Your task to perform on an android device: turn pop-ups off in chrome Image 0: 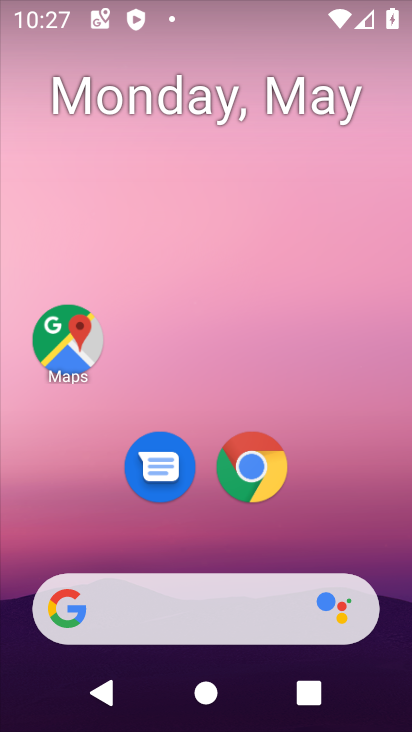
Step 0: click (245, 467)
Your task to perform on an android device: turn pop-ups off in chrome Image 1: 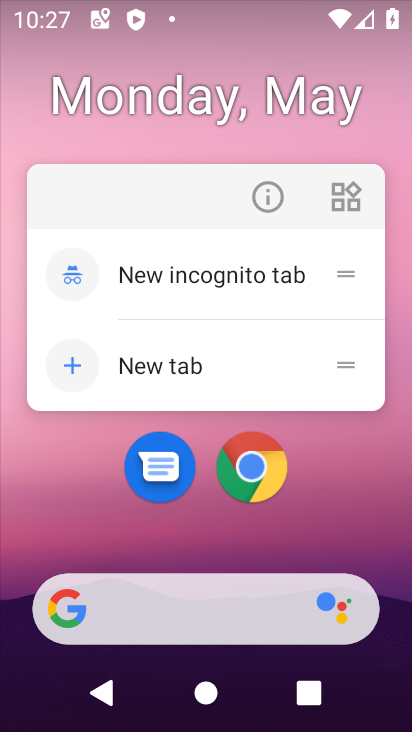
Step 1: click (245, 467)
Your task to perform on an android device: turn pop-ups off in chrome Image 2: 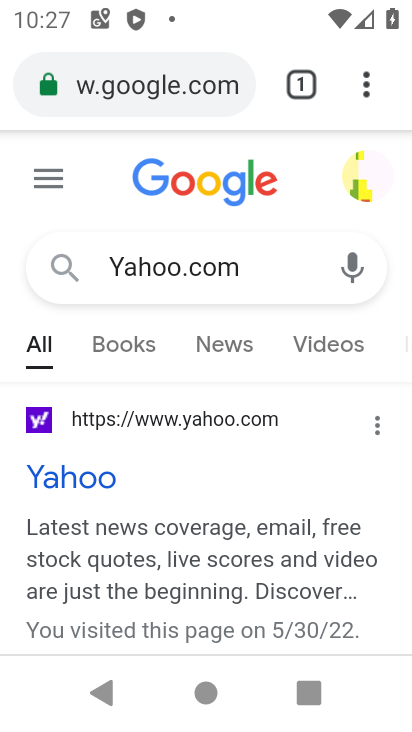
Step 2: click (238, 80)
Your task to perform on an android device: turn pop-ups off in chrome Image 3: 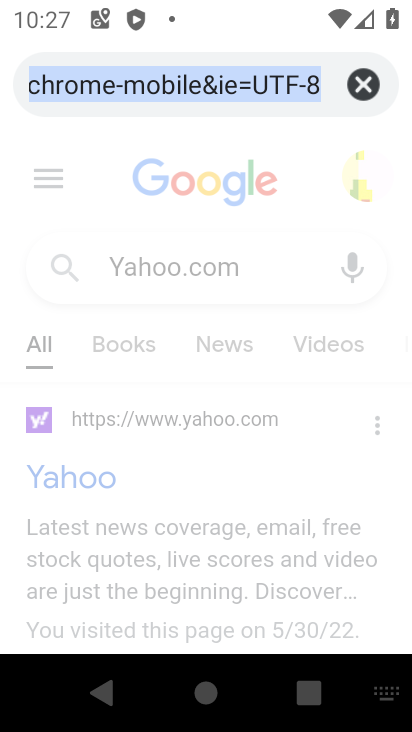
Step 3: click (360, 85)
Your task to perform on an android device: turn pop-ups off in chrome Image 4: 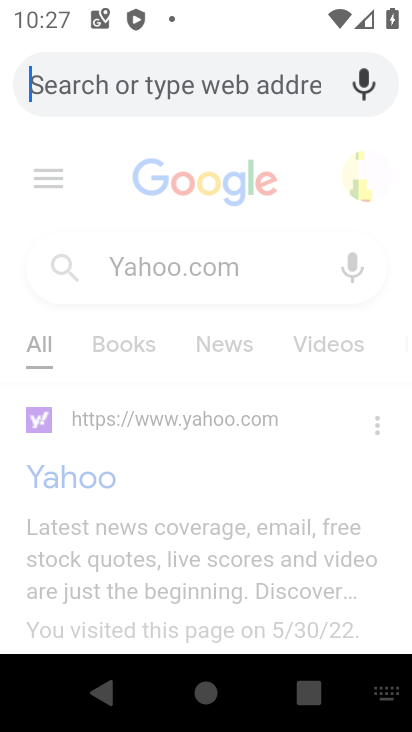
Step 4: press back button
Your task to perform on an android device: turn pop-ups off in chrome Image 5: 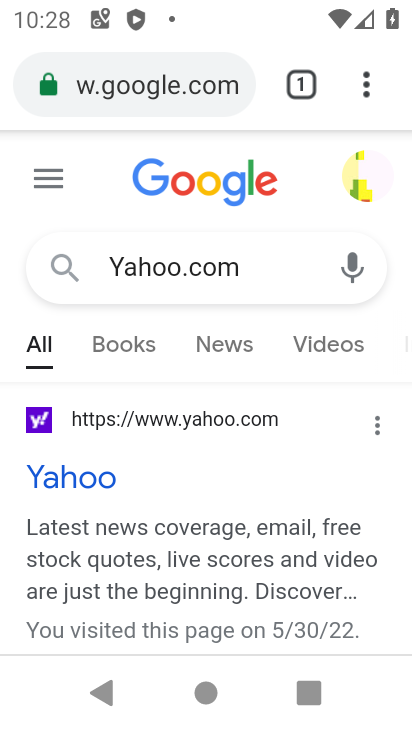
Step 5: click (365, 84)
Your task to perform on an android device: turn pop-ups off in chrome Image 6: 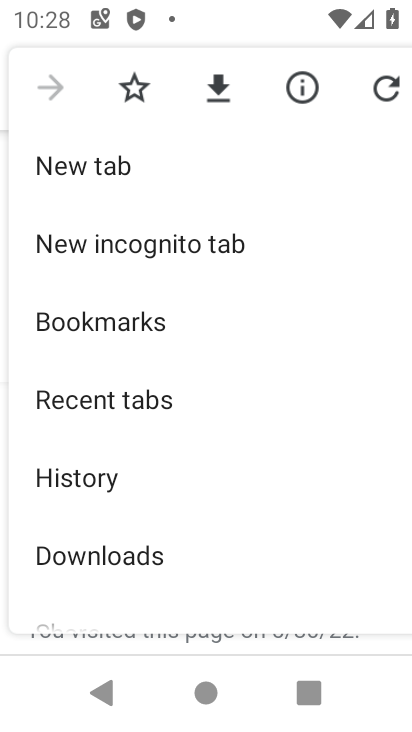
Step 6: drag from (218, 588) to (238, 306)
Your task to perform on an android device: turn pop-ups off in chrome Image 7: 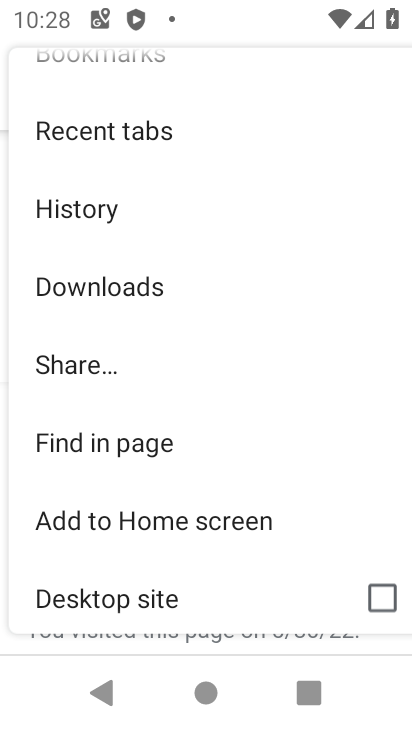
Step 7: drag from (242, 582) to (276, 326)
Your task to perform on an android device: turn pop-ups off in chrome Image 8: 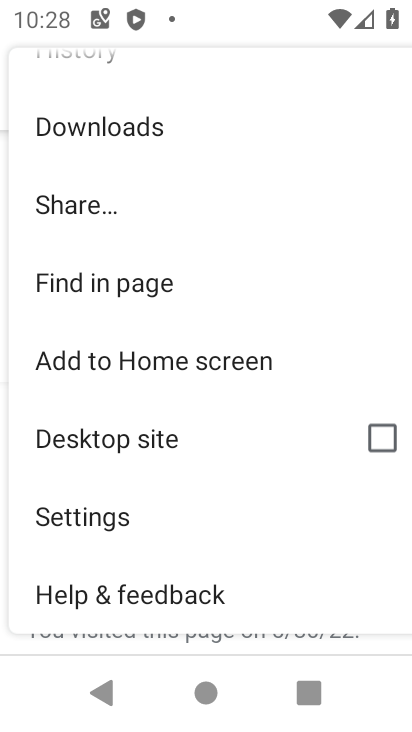
Step 8: click (100, 523)
Your task to perform on an android device: turn pop-ups off in chrome Image 9: 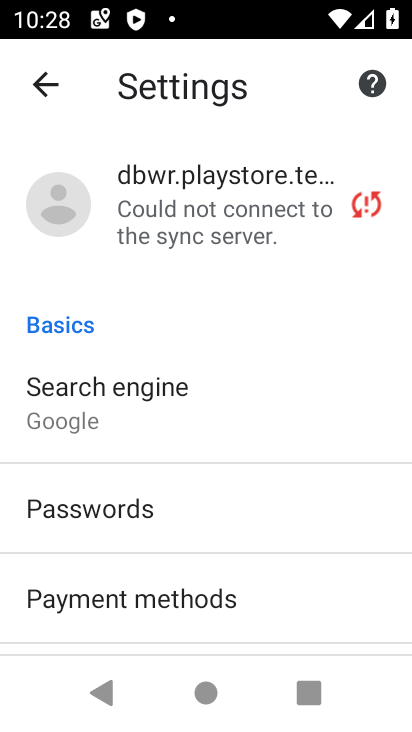
Step 9: drag from (250, 572) to (211, 219)
Your task to perform on an android device: turn pop-ups off in chrome Image 10: 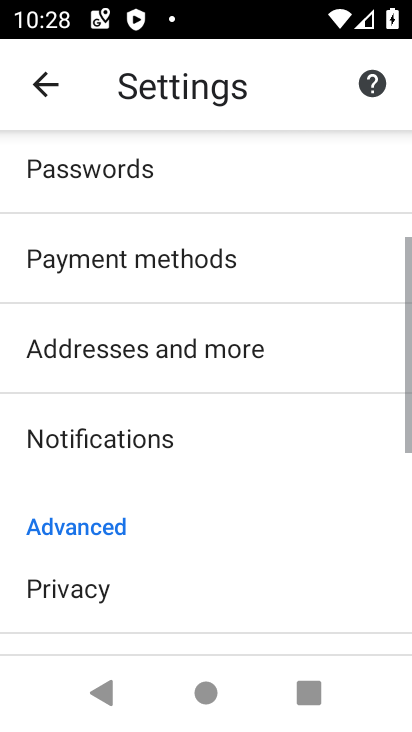
Step 10: drag from (307, 630) to (286, 281)
Your task to perform on an android device: turn pop-ups off in chrome Image 11: 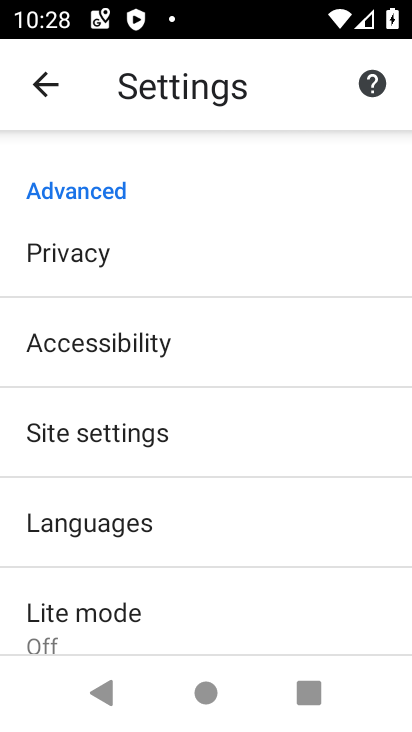
Step 11: drag from (276, 617) to (270, 340)
Your task to perform on an android device: turn pop-ups off in chrome Image 12: 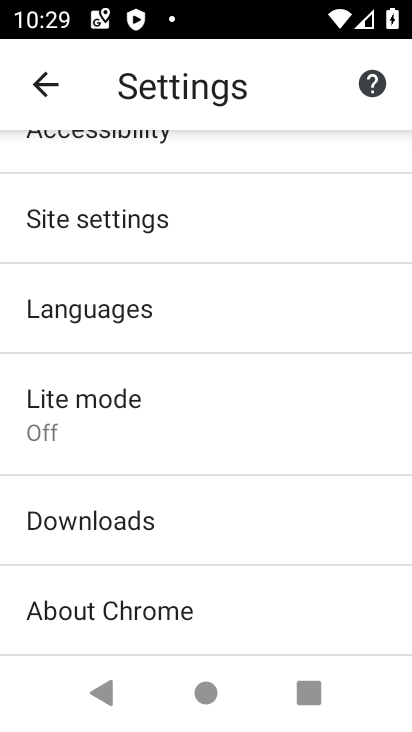
Step 12: drag from (245, 626) to (262, 289)
Your task to perform on an android device: turn pop-ups off in chrome Image 13: 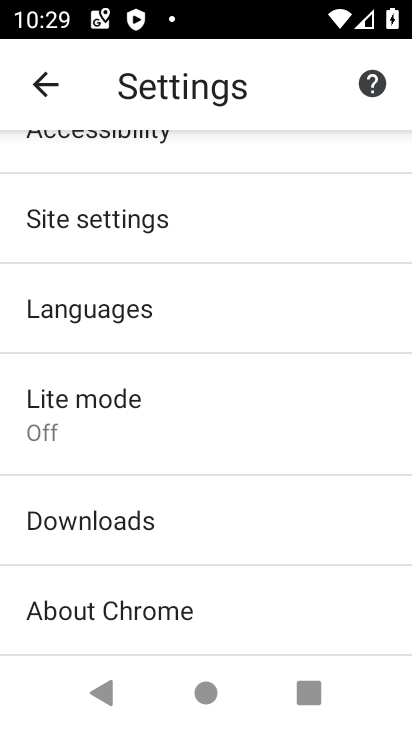
Step 13: drag from (271, 619) to (295, 346)
Your task to perform on an android device: turn pop-ups off in chrome Image 14: 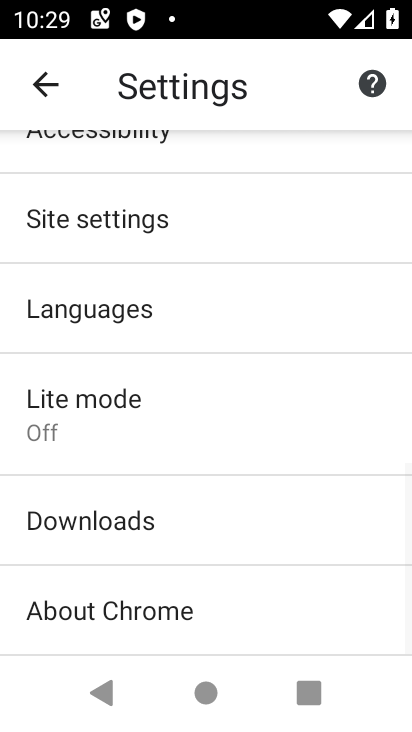
Step 14: drag from (283, 198) to (284, 555)
Your task to perform on an android device: turn pop-ups off in chrome Image 15: 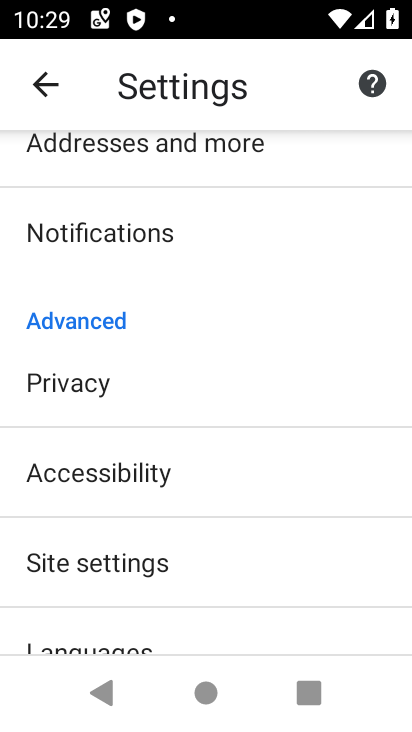
Step 15: drag from (276, 286) to (277, 517)
Your task to perform on an android device: turn pop-ups off in chrome Image 16: 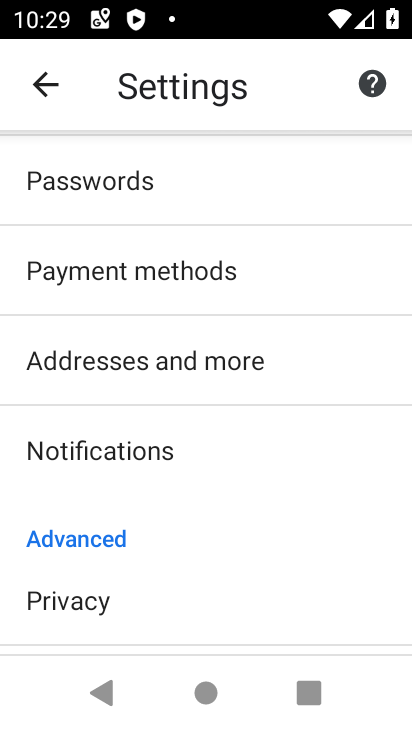
Step 16: drag from (280, 235) to (261, 585)
Your task to perform on an android device: turn pop-ups off in chrome Image 17: 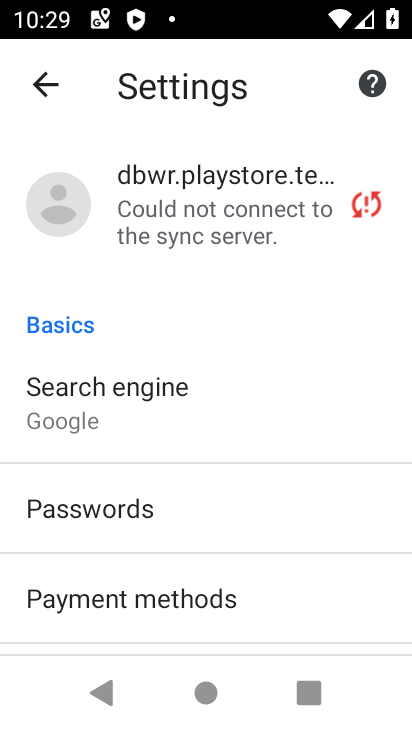
Step 17: drag from (277, 616) to (278, 276)
Your task to perform on an android device: turn pop-ups off in chrome Image 18: 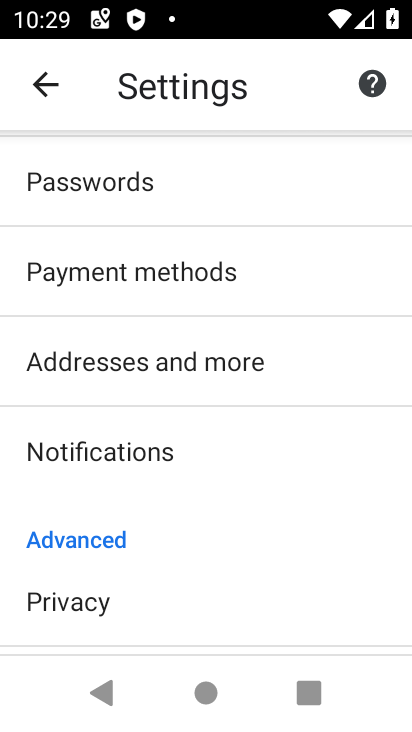
Step 18: drag from (200, 593) to (230, 296)
Your task to perform on an android device: turn pop-ups off in chrome Image 19: 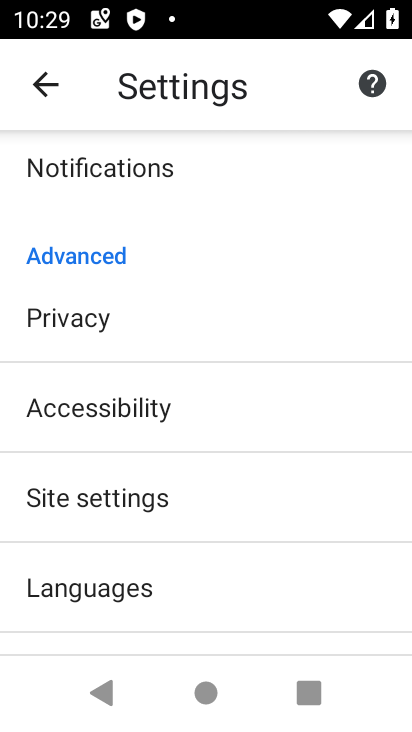
Step 19: click (105, 504)
Your task to perform on an android device: turn pop-ups off in chrome Image 20: 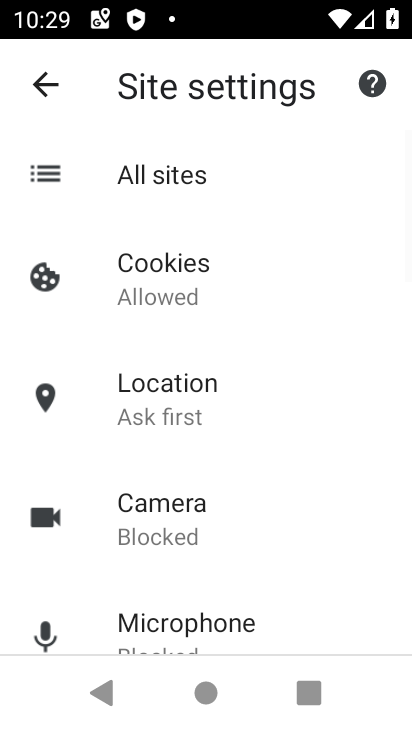
Step 20: drag from (267, 618) to (273, 226)
Your task to perform on an android device: turn pop-ups off in chrome Image 21: 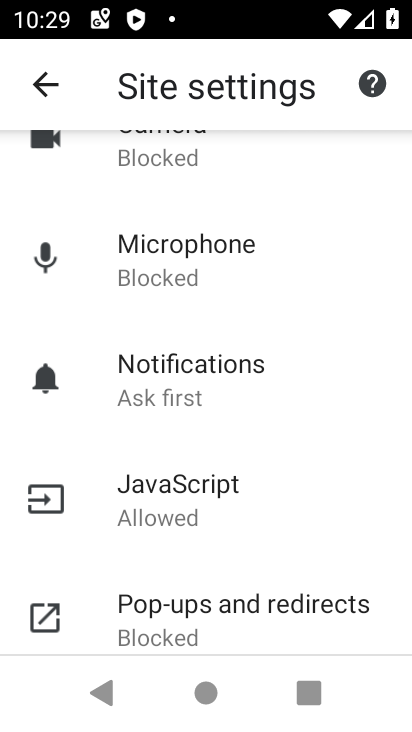
Step 21: click (163, 605)
Your task to perform on an android device: turn pop-ups off in chrome Image 22: 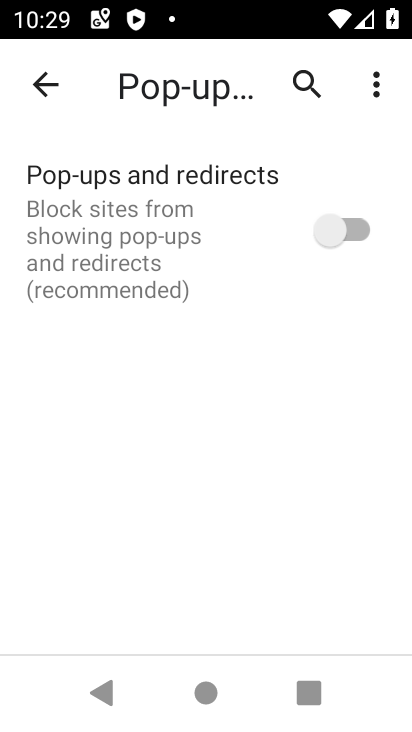
Step 22: task complete